Your task to perform on an android device: turn off sleep mode Image 0: 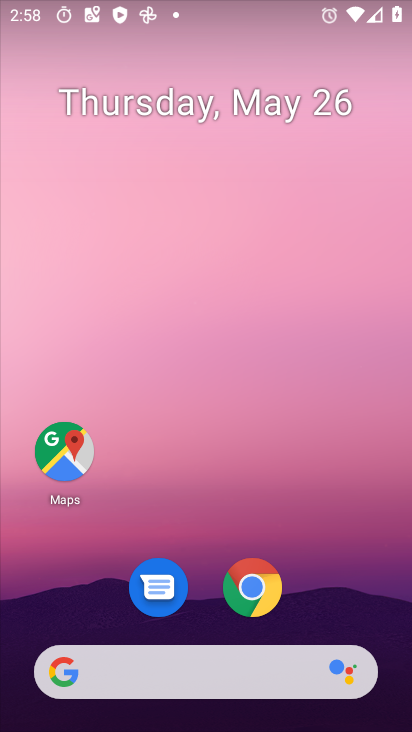
Step 0: drag from (357, 599) to (346, 191)
Your task to perform on an android device: turn off sleep mode Image 1: 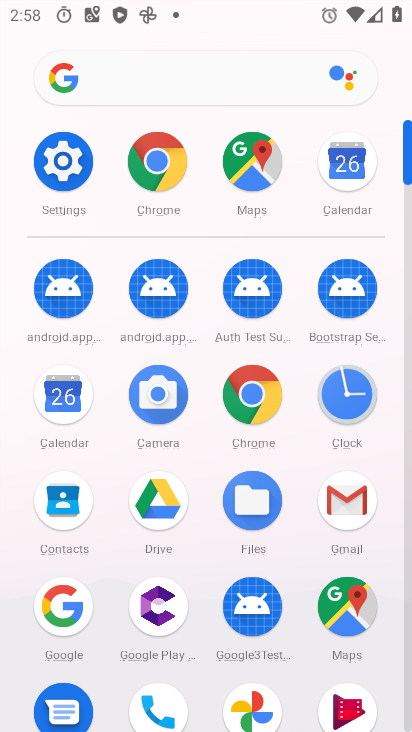
Step 1: click (75, 171)
Your task to perform on an android device: turn off sleep mode Image 2: 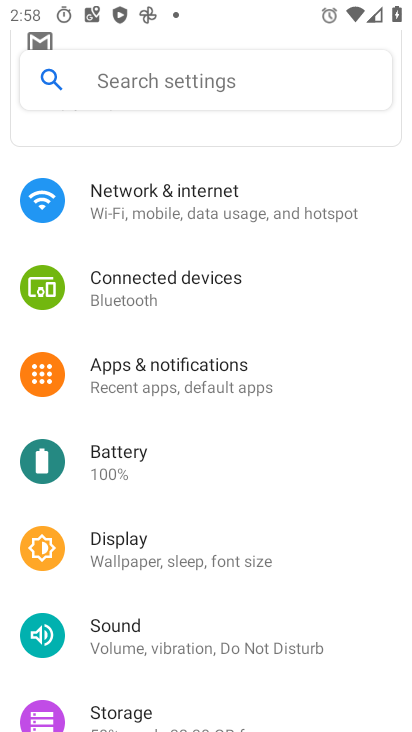
Step 2: drag from (365, 515) to (375, 400)
Your task to perform on an android device: turn off sleep mode Image 3: 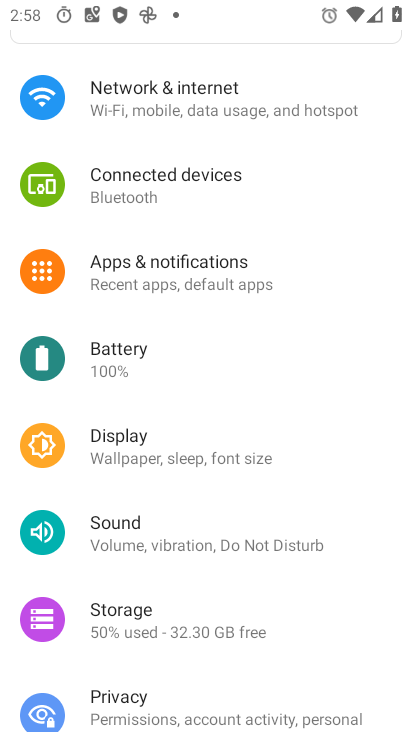
Step 3: drag from (341, 543) to (344, 433)
Your task to perform on an android device: turn off sleep mode Image 4: 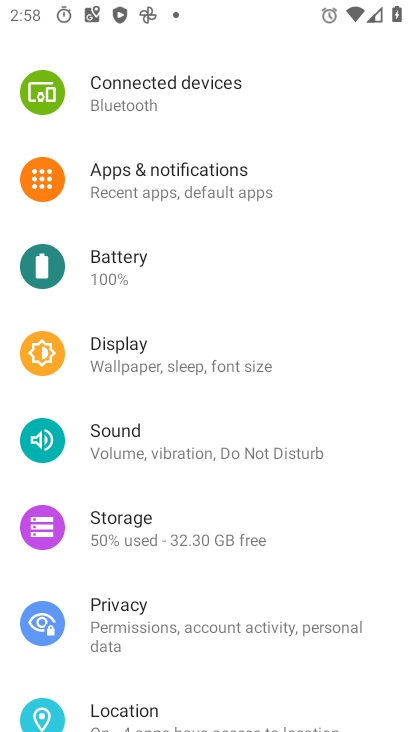
Step 4: drag from (362, 561) to (359, 449)
Your task to perform on an android device: turn off sleep mode Image 5: 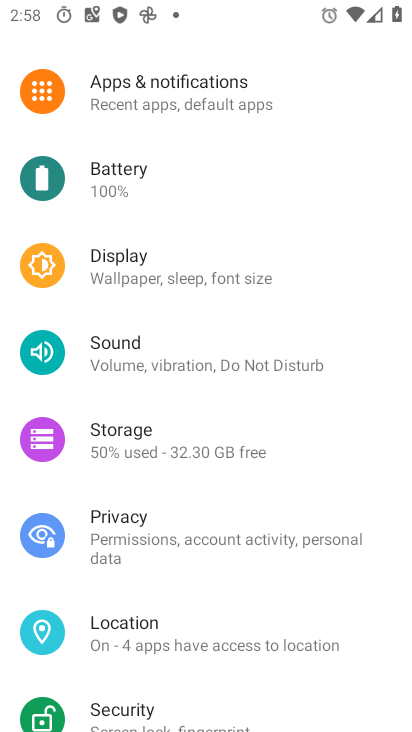
Step 5: drag from (373, 586) to (393, 391)
Your task to perform on an android device: turn off sleep mode Image 6: 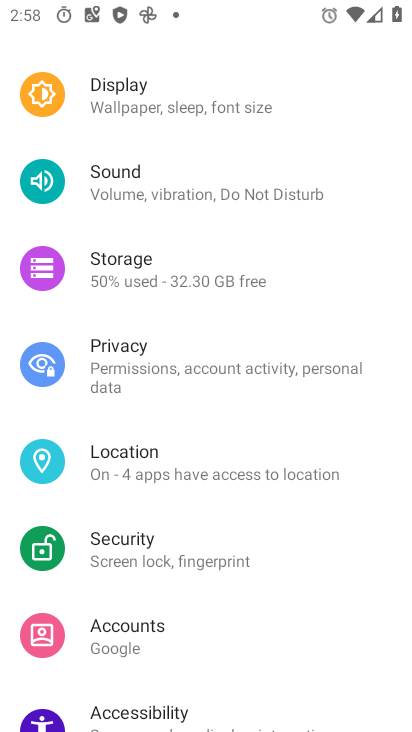
Step 6: drag from (375, 583) to (383, 467)
Your task to perform on an android device: turn off sleep mode Image 7: 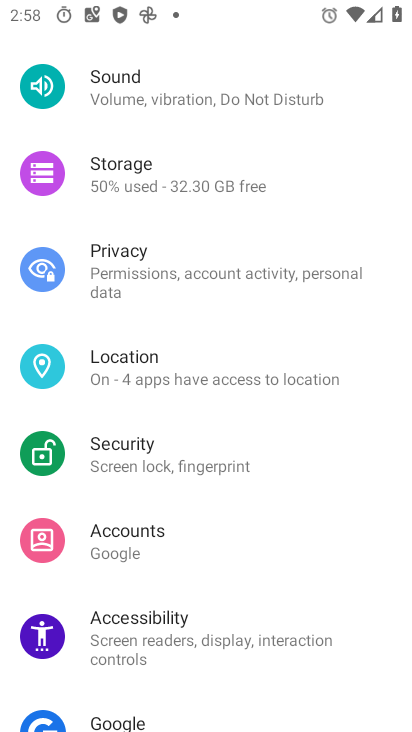
Step 7: drag from (374, 550) to (357, 438)
Your task to perform on an android device: turn off sleep mode Image 8: 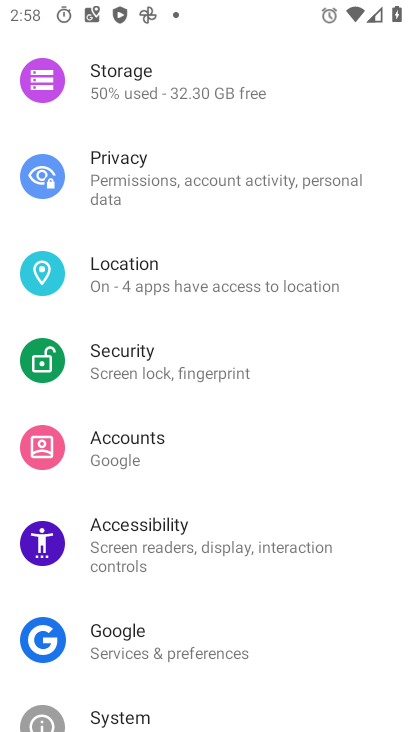
Step 8: drag from (368, 522) to (371, 373)
Your task to perform on an android device: turn off sleep mode Image 9: 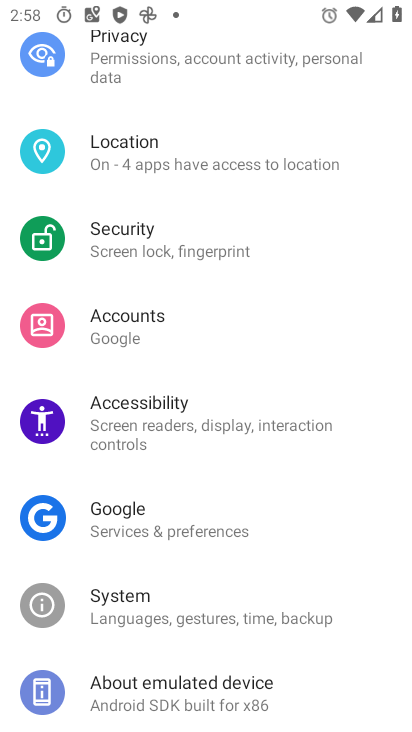
Step 9: drag from (350, 567) to (357, 461)
Your task to perform on an android device: turn off sleep mode Image 10: 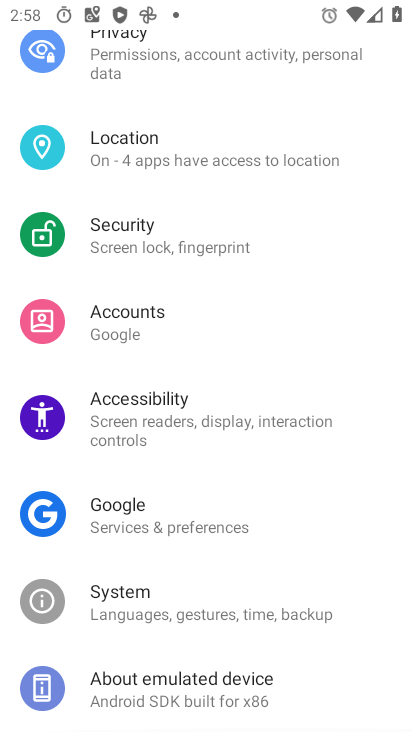
Step 10: drag from (352, 374) to (369, 477)
Your task to perform on an android device: turn off sleep mode Image 11: 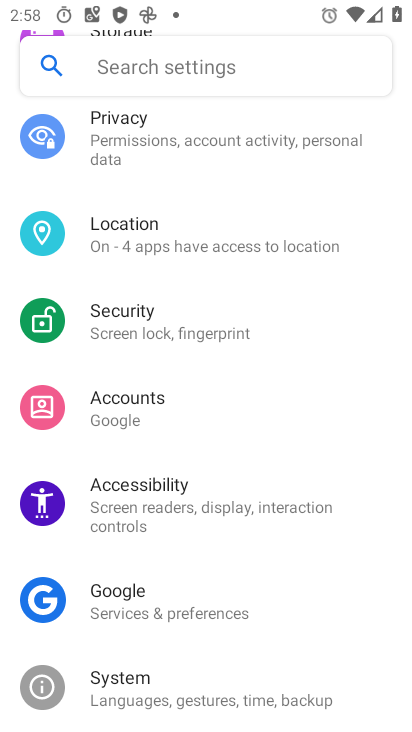
Step 11: drag from (369, 351) to (374, 533)
Your task to perform on an android device: turn off sleep mode Image 12: 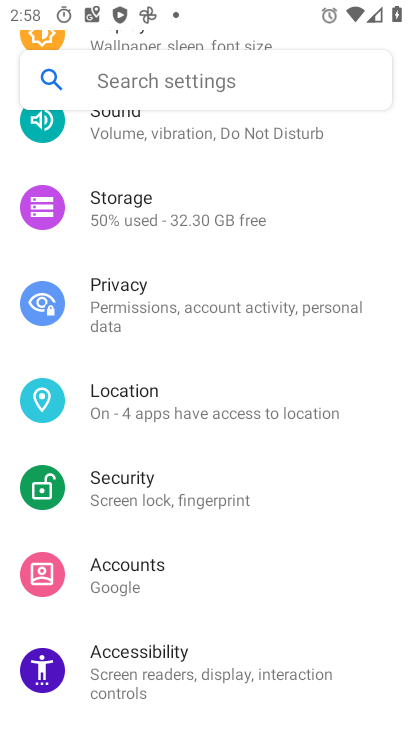
Step 12: drag from (355, 325) to (348, 509)
Your task to perform on an android device: turn off sleep mode Image 13: 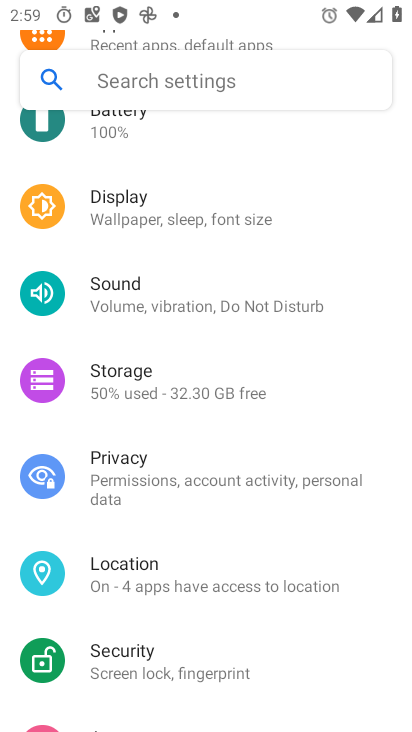
Step 13: drag from (354, 337) to (352, 463)
Your task to perform on an android device: turn off sleep mode Image 14: 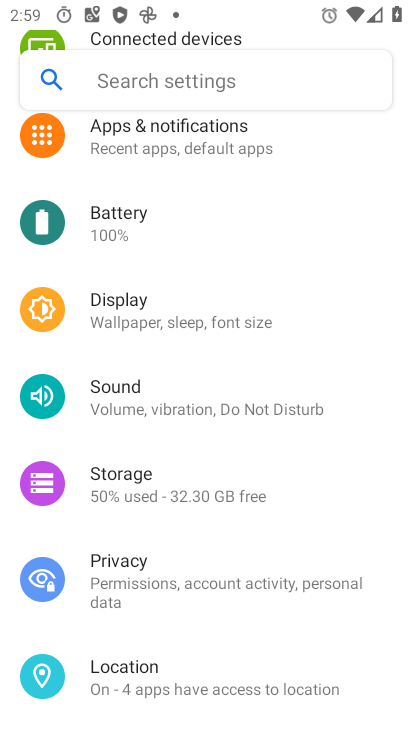
Step 14: drag from (338, 290) to (350, 423)
Your task to perform on an android device: turn off sleep mode Image 15: 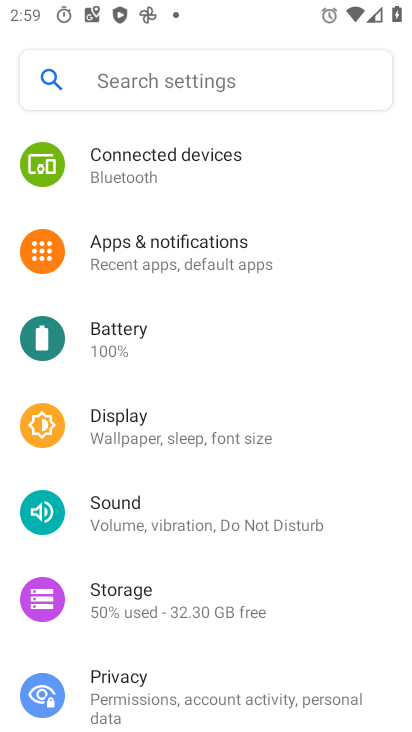
Step 15: click (263, 441)
Your task to perform on an android device: turn off sleep mode Image 16: 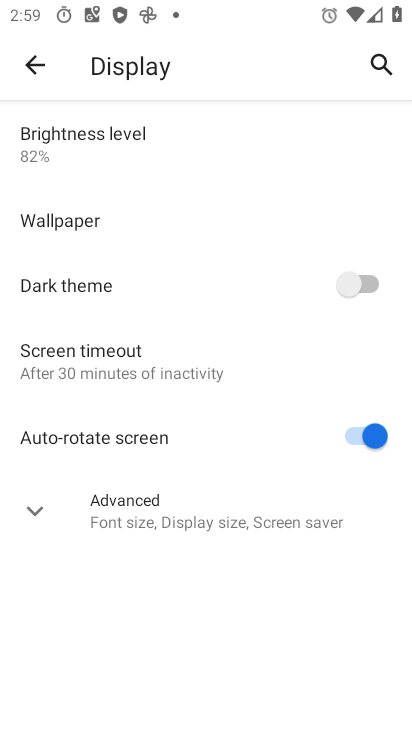
Step 16: click (236, 516)
Your task to perform on an android device: turn off sleep mode Image 17: 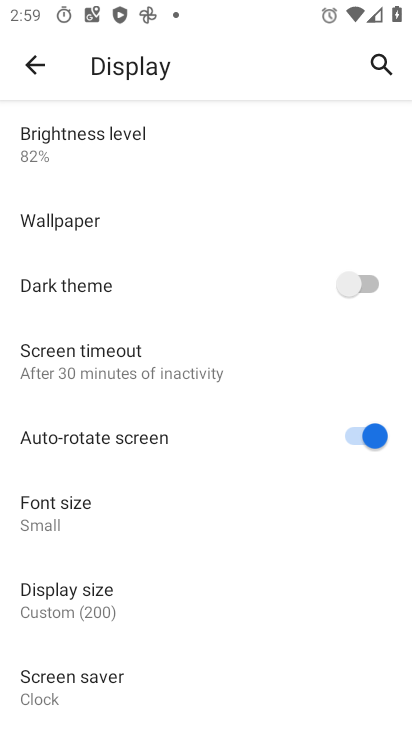
Step 17: task complete